Your task to perform on an android device: Open Google Maps and go to "Timeline" Image 0: 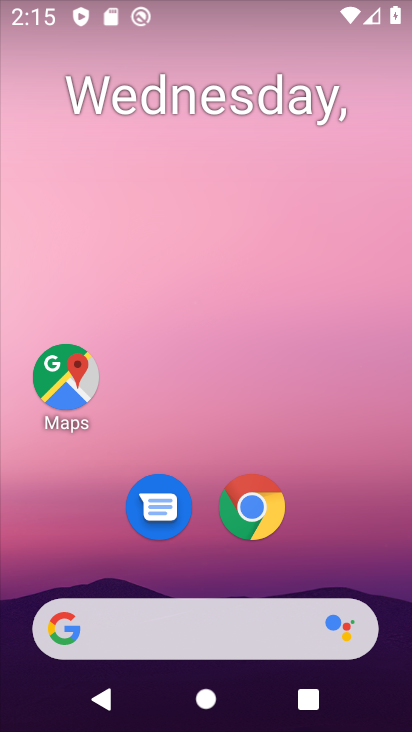
Step 0: click (87, 366)
Your task to perform on an android device: Open Google Maps and go to "Timeline" Image 1: 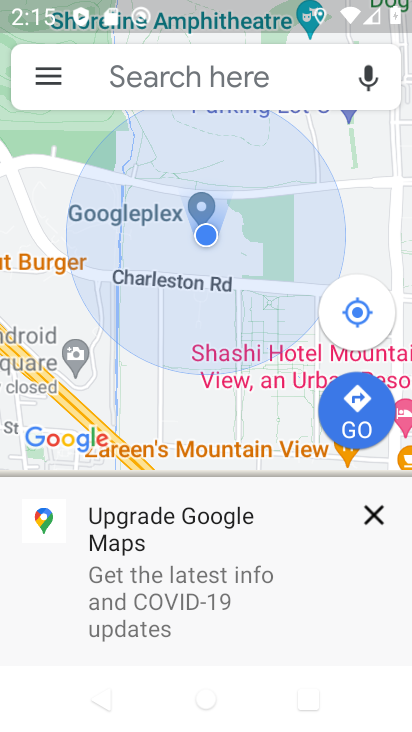
Step 1: click (156, 64)
Your task to perform on an android device: Open Google Maps and go to "Timeline" Image 2: 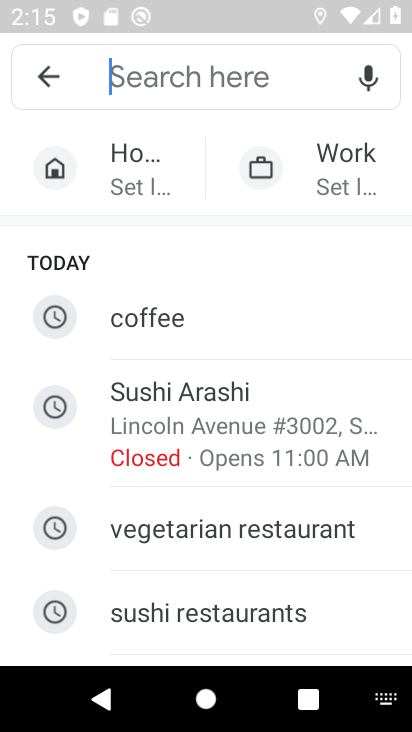
Step 2: drag from (327, 599) to (362, 185)
Your task to perform on an android device: Open Google Maps and go to "Timeline" Image 3: 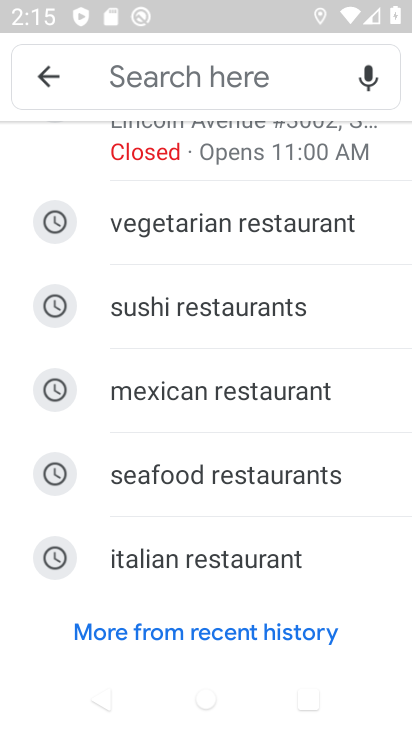
Step 3: click (227, 70)
Your task to perform on an android device: Open Google Maps and go to "Timeline" Image 4: 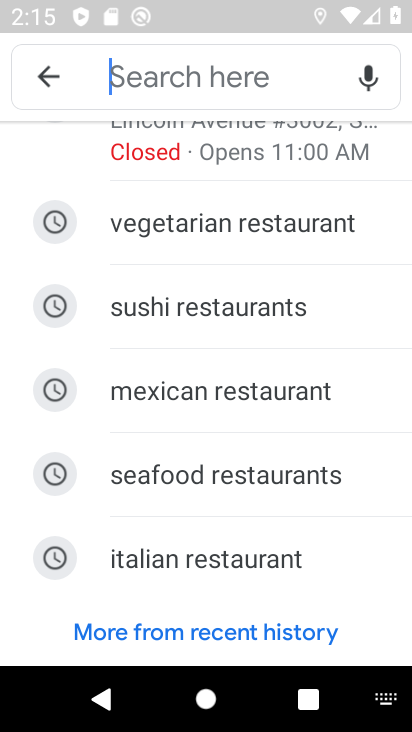
Step 4: click (227, 72)
Your task to perform on an android device: Open Google Maps and go to "Timeline" Image 5: 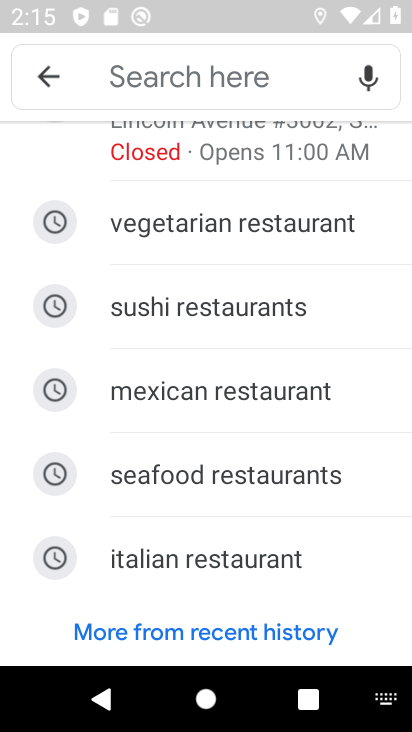
Step 5: click (227, 72)
Your task to perform on an android device: Open Google Maps and go to "Timeline" Image 6: 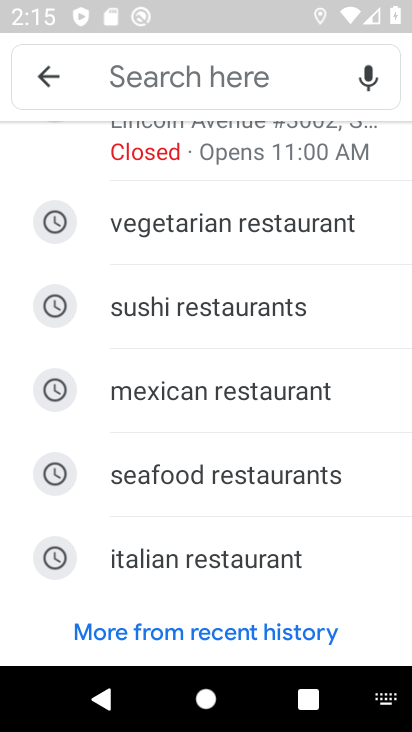
Step 6: click (227, 72)
Your task to perform on an android device: Open Google Maps and go to "Timeline" Image 7: 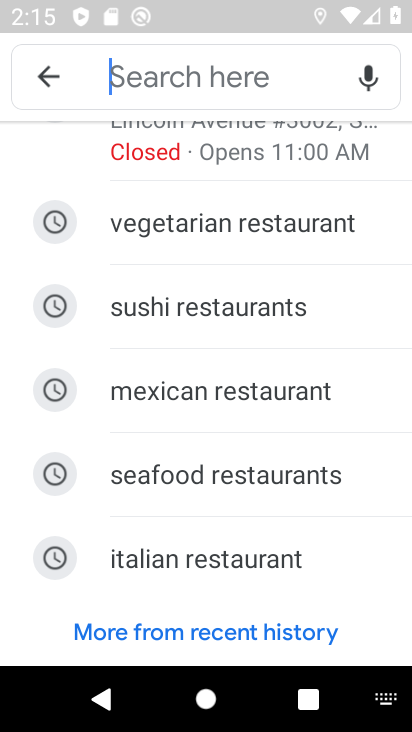
Step 7: click (227, 72)
Your task to perform on an android device: Open Google Maps and go to "Timeline" Image 8: 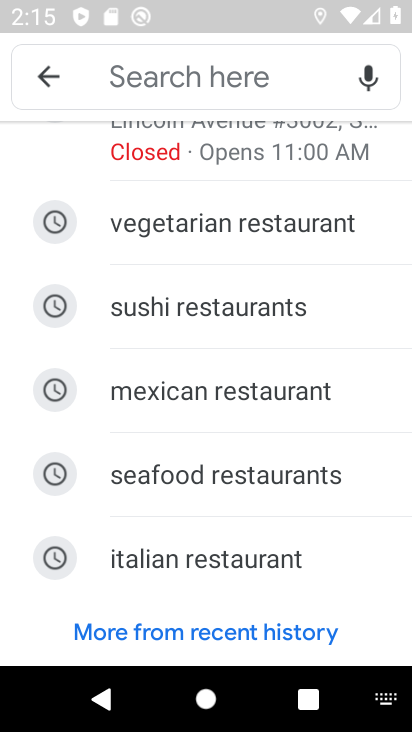
Step 8: click (227, 72)
Your task to perform on an android device: Open Google Maps and go to "Timeline" Image 9: 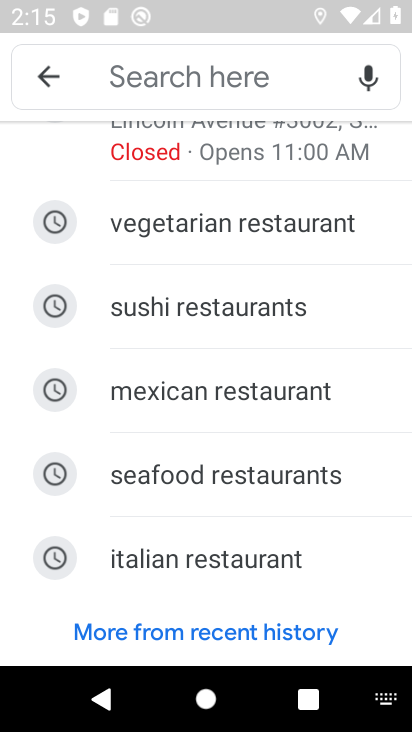
Step 9: click (227, 72)
Your task to perform on an android device: Open Google Maps and go to "Timeline" Image 10: 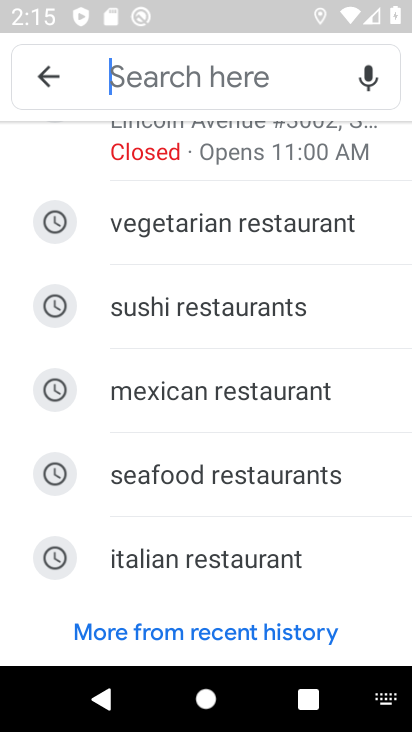
Step 10: type "Timeline"
Your task to perform on an android device: Open Google Maps and go to "Timeline" Image 11: 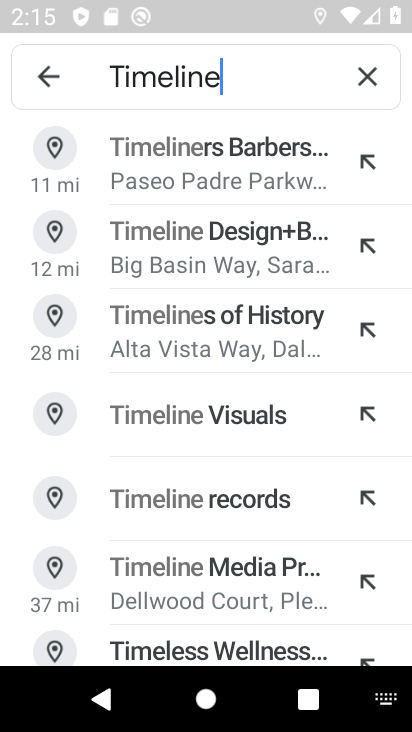
Step 11: click (167, 160)
Your task to perform on an android device: Open Google Maps and go to "Timeline" Image 12: 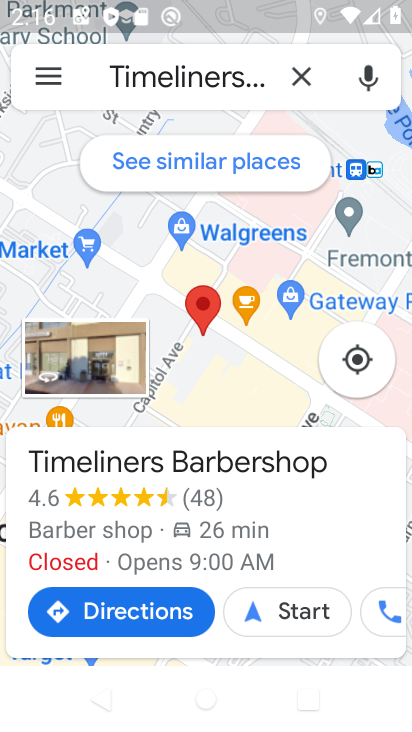
Step 12: drag from (152, 521) to (130, 252)
Your task to perform on an android device: Open Google Maps and go to "Timeline" Image 13: 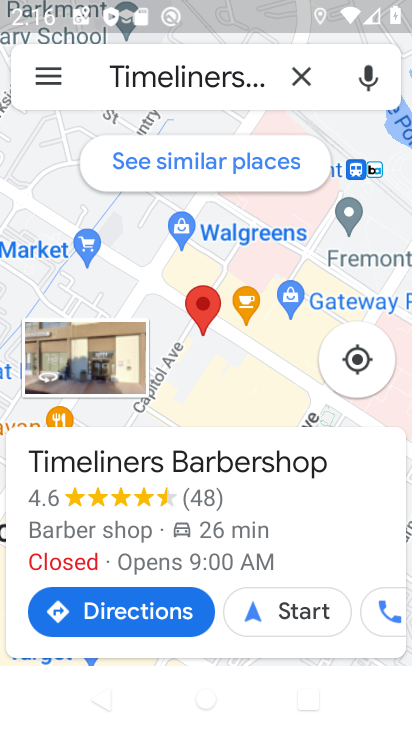
Step 13: click (225, 67)
Your task to perform on an android device: Open Google Maps and go to "Timeline" Image 14: 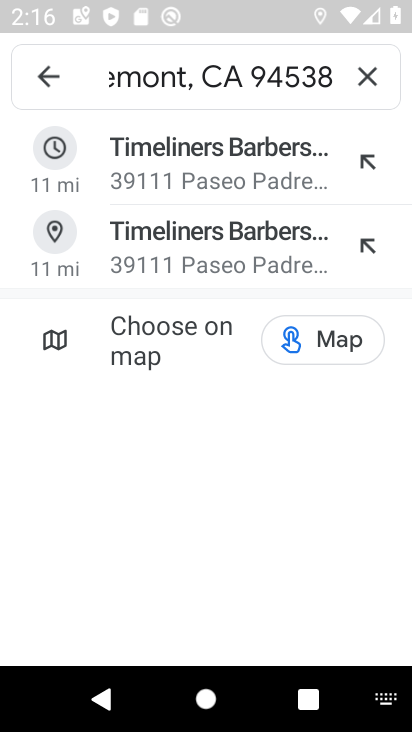
Step 14: click (360, 72)
Your task to perform on an android device: Open Google Maps and go to "Timeline" Image 15: 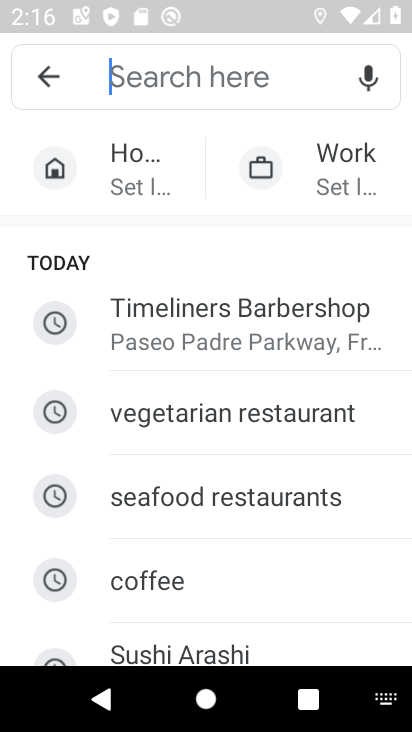
Step 15: type "Timeline"
Your task to perform on an android device: Open Google Maps and go to "Timeline" Image 16: 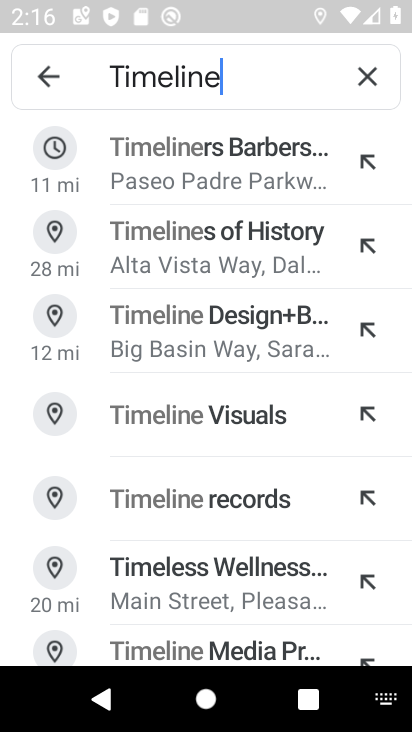
Step 16: drag from (227, 548) to (220, 197)
Your task to perform on an android device: Open Google Maps and go to "Timeline" Image 17: 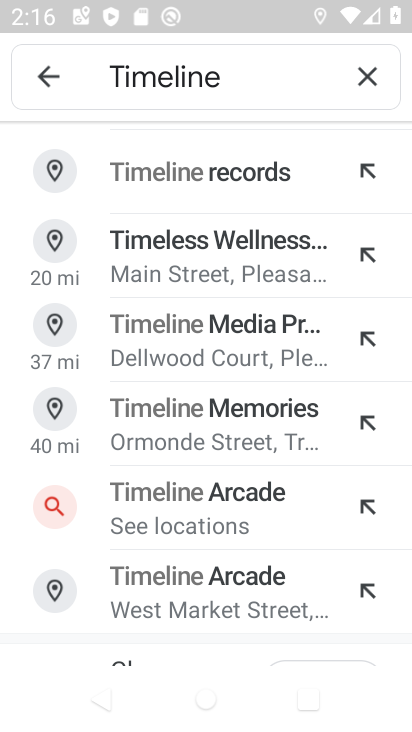
Step 17: drag from (235, 567) to (227, 230)
Your task to perform on an android device: Open Google Maps and go to "Timeline" Image 18: 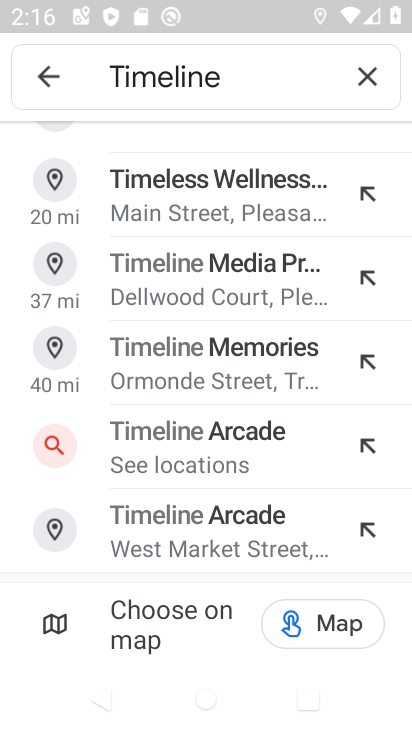
Step 18: click (180, 431)
Your task to perform on an android device: Open Google Maps and go to "Timeline" Image 19: 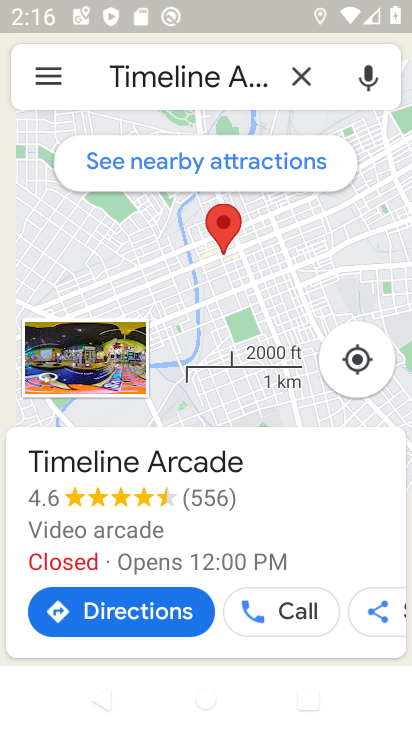
Step 19: task complete